Your task to perform on an android device: What's a good restaurant in Atlanta? Image 0: 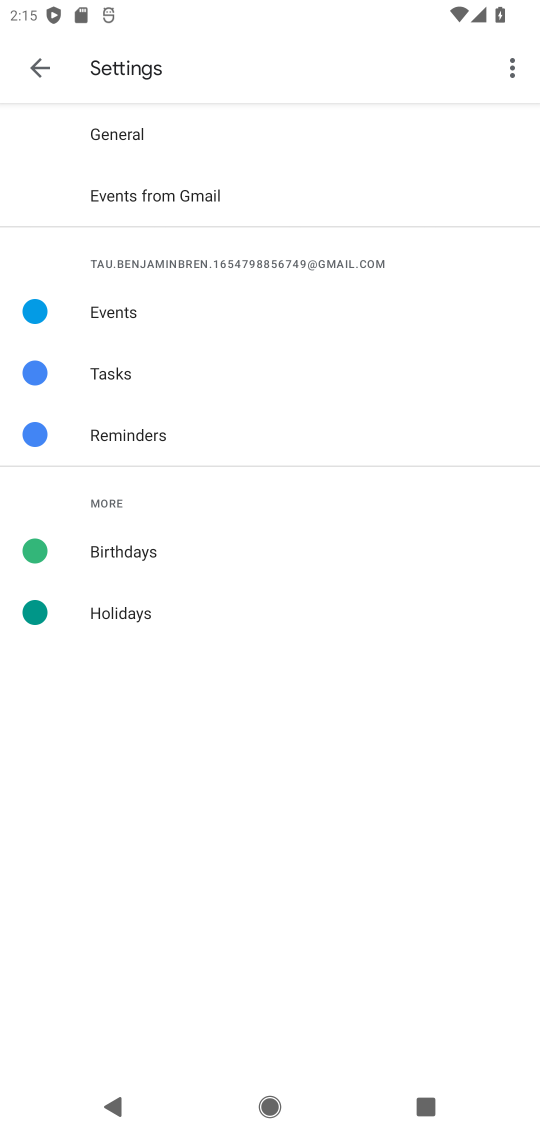
Step 0: press home button
Your task to perform on an android device: What's a good restaurant in Atlanta? Image 1: 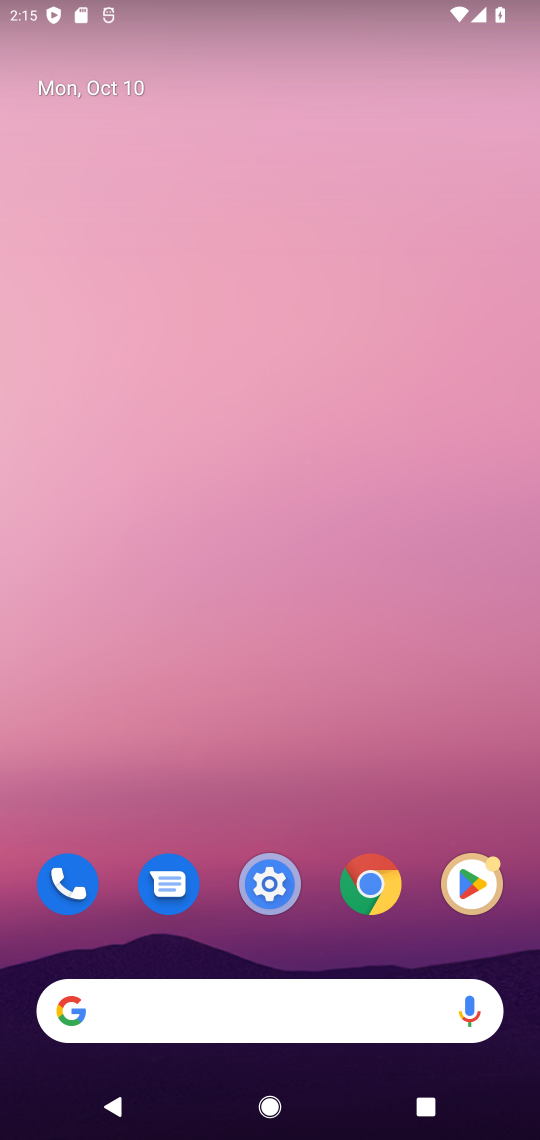
Step 1: click (347, 1004)
Your task to perform on an android device: What's a good restaurant in Atlanta? Image 2: 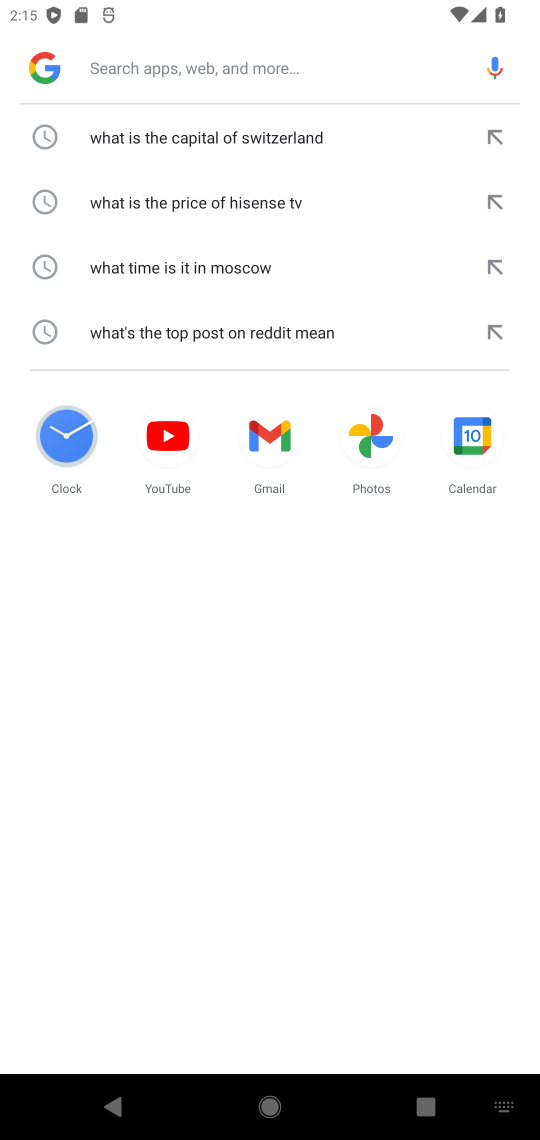
Step 2: type "What's a good restaurant in Atlanta"
Your task to perform on an android device: What's a good restaurant in Atlanta? Image 3: 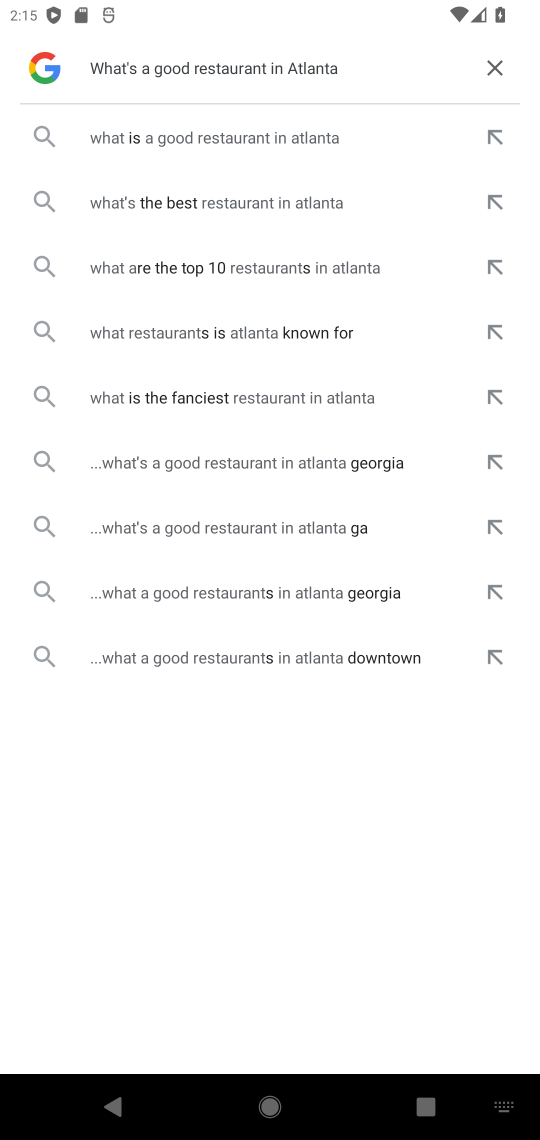
Step 3: click (216, 143)
Your task to perform on an android device: What's a good restaurant in Atlanta? Image 4: 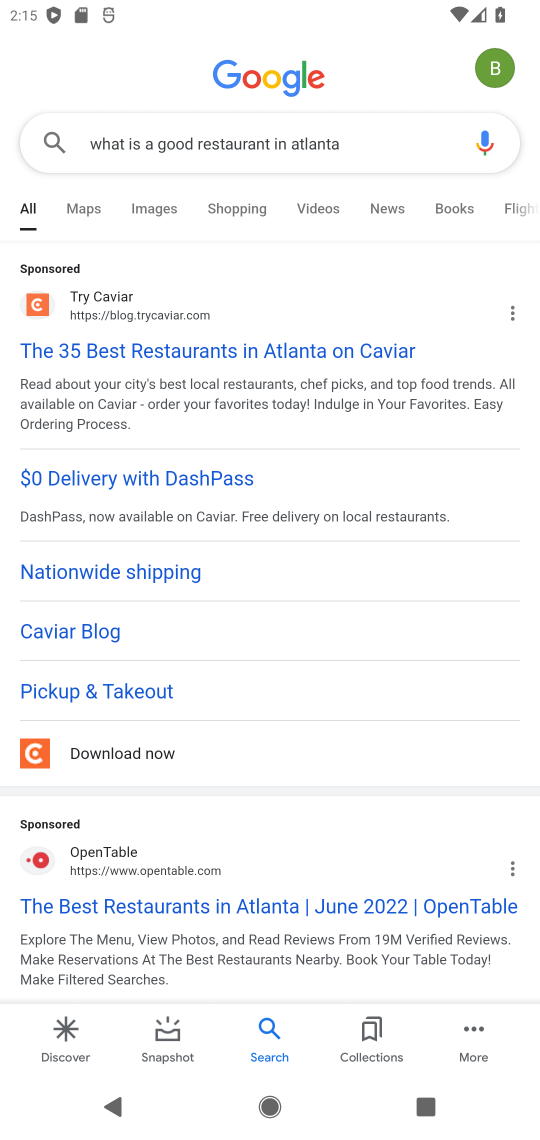
Step 4: click (250, 345)
Your task to perform on an android device: What's a good restaurant in Atlanta? Image 5: 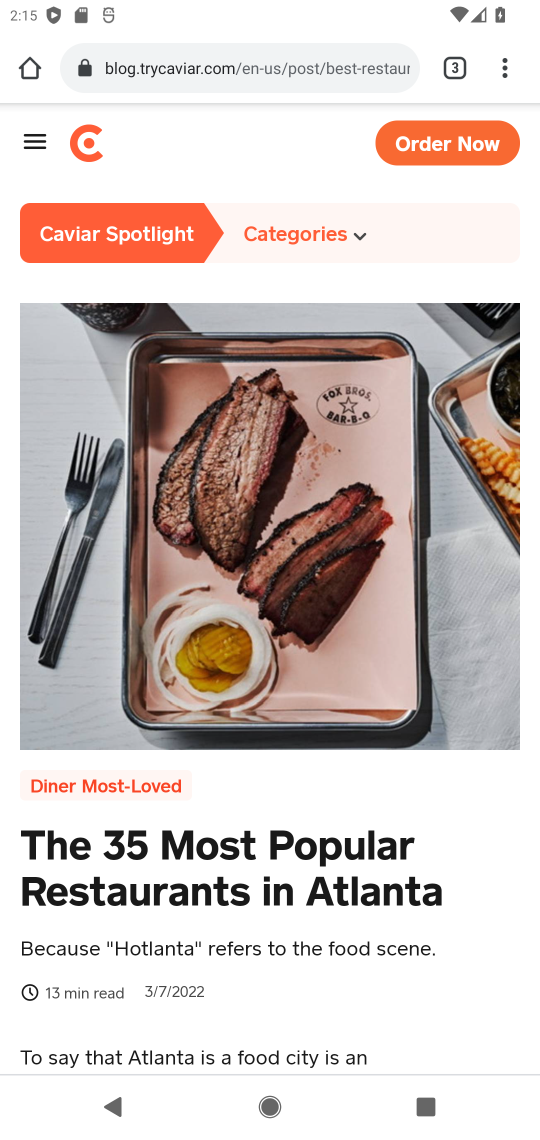
Step 5: task complete